Your task to perform on an android device: toggle improve location accuracy Image 0: 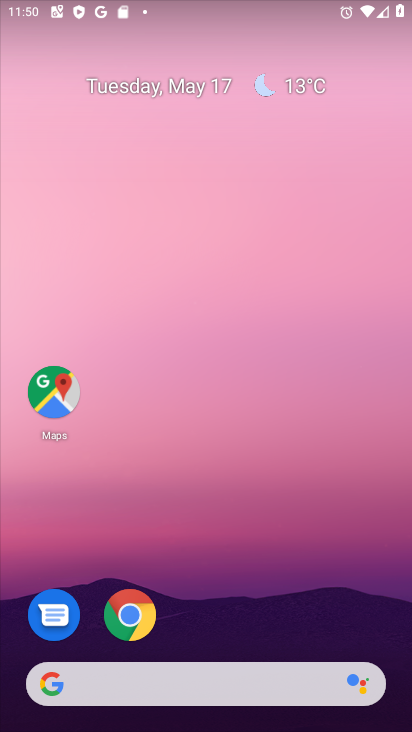
Step 0: drag from (263, 591) to (237, 197)
Your task to perform on an android device: toggle improve location accuracy Image 1: 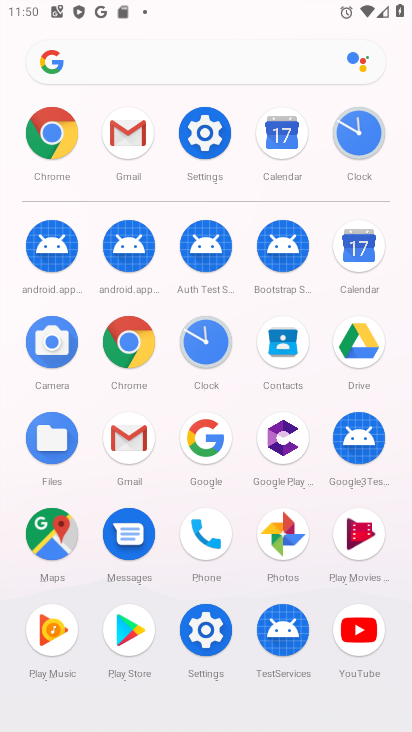
Step 1: click (203, 145)
Your task to perform on an android device: toggle improve location accuracy Image 2: 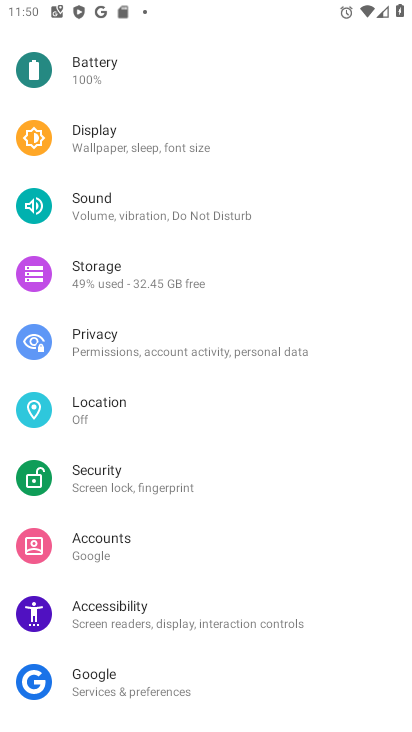
Step 2: drag from (265, 551) to (238, 298)
Your task to perform on an android device: toggle improve location accuracy Image 3: 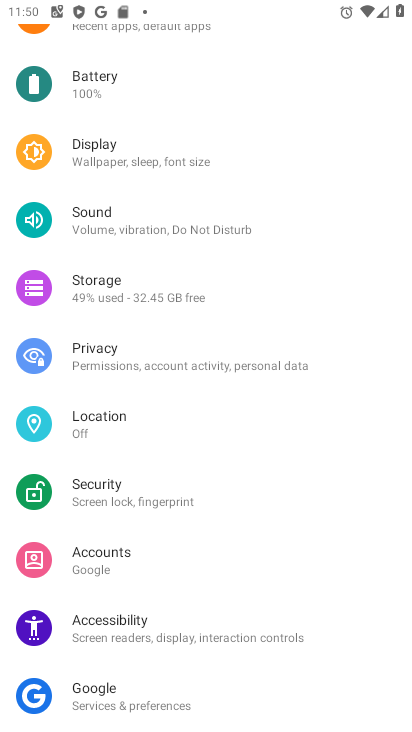
Step 3: click (124, 426)
Your task to perform on an android device: toggle improve location accuracy Image 4: 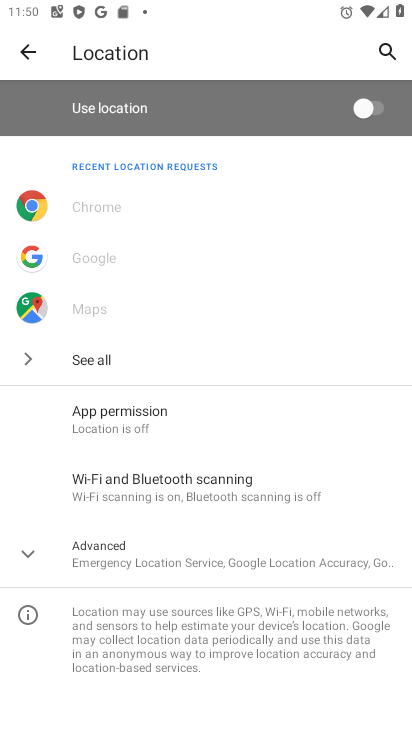
Step 4: click (128, 559)
Your task to perform on an android device: toggle improve location accuracy Image 5: 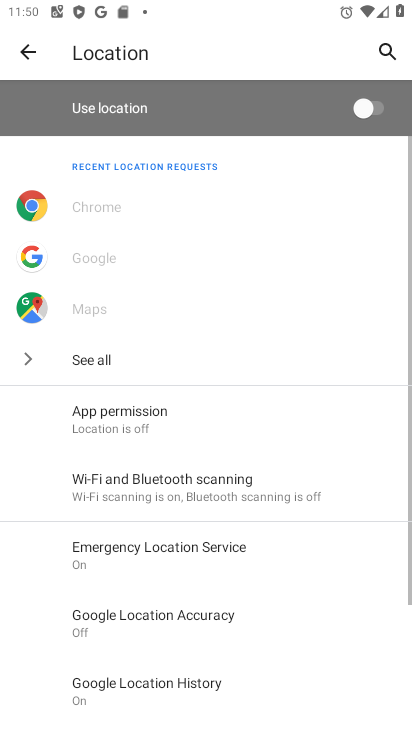
Step 5: drag from (270, 585) to (298, 227)
Your task to perform on an android device: toggle improve location accuracy Image 6: 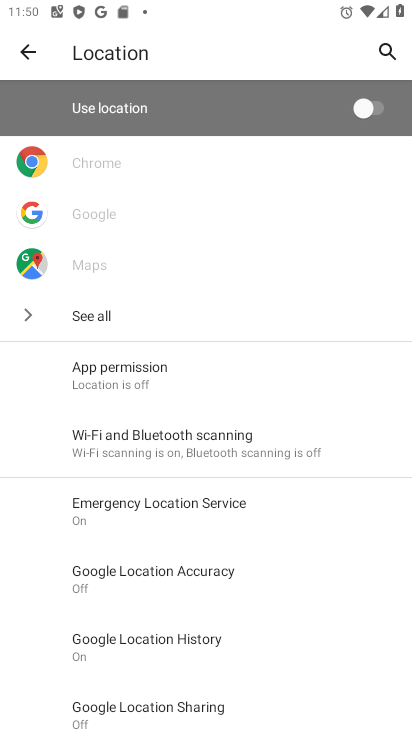
Step 6: click (199, 569)
Your task to perform on an android device: toggle improve location accuracy Image 7: 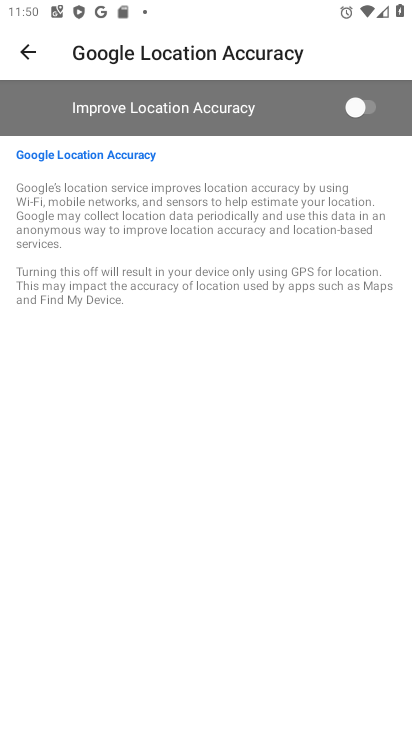
Step 7: click (375, 105)
Your task to perform on an android device: toggle improve location accuracy Image 8: 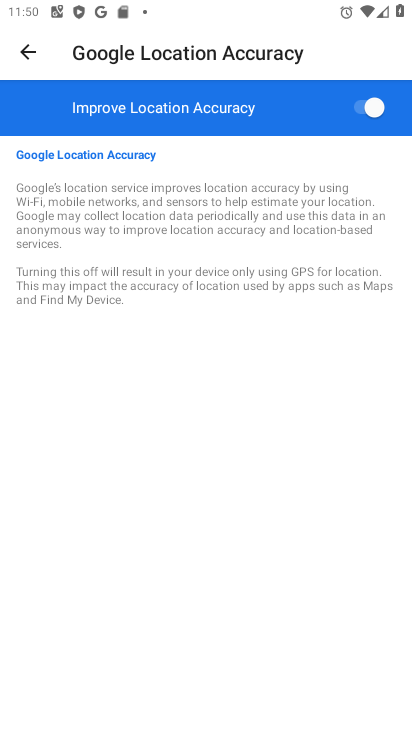
Step 8: task complete